Your task to perform on an android device: visit the assistant section in the google photos Image 0: 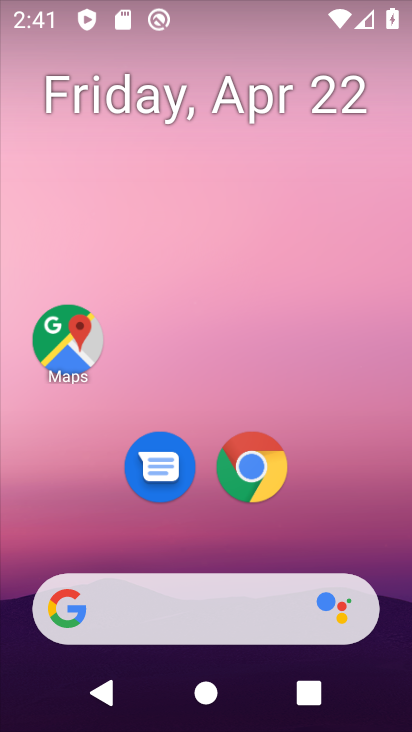
Step 0: drag from (398, 586) to (294, 81)
Your task to perform on an android device: visit the assistant section in the google photos Image 1: 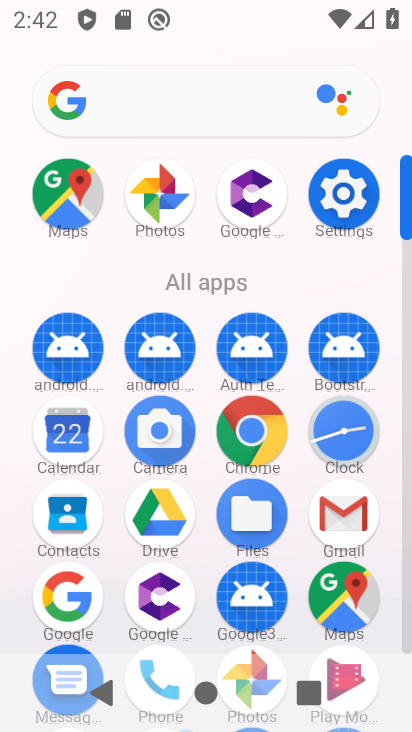
Step 1: click (163, 208)
Your task to perform on an android device: visit the assistant section in the google photos Image 2: 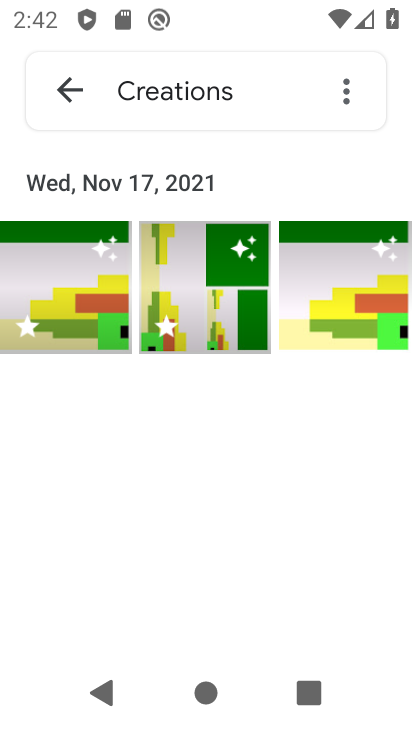
Step 2: click (74, 96)
Your task to perform on an android device: visit the assistant section in the google photos Image 3: 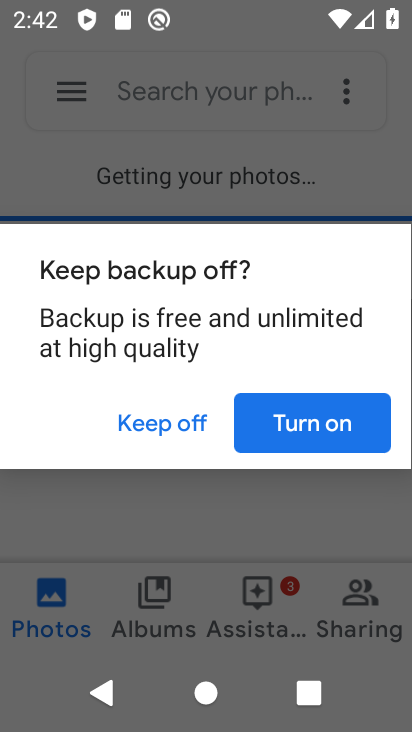
Step 3: click (324, 428)
Your task to perform on an android device: visit the assistant section in the google photos Image 4: 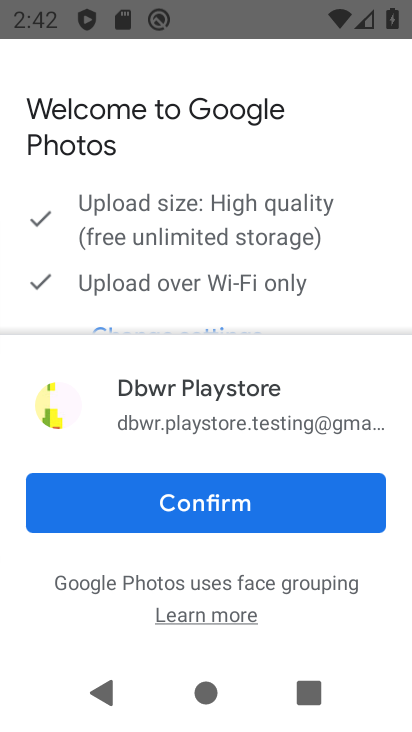
Step 4: click (288, 497)
Your task to perform on an android device: visit the assistant section in the google photos Image 5: 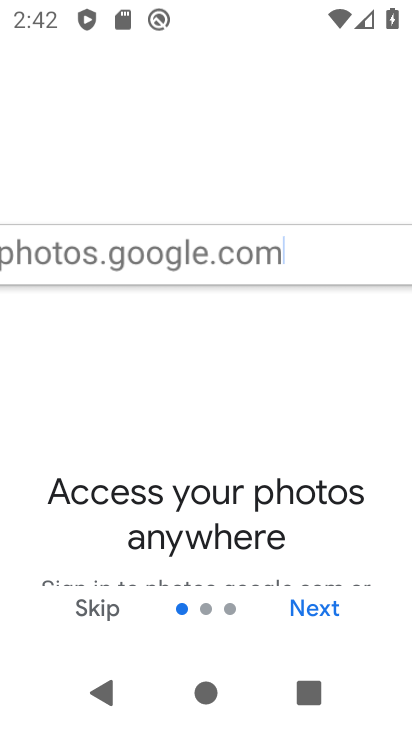
Step 5: click (304, 608)
Your task to perform on an android device: visit the assistant section in the google photos Image 6: 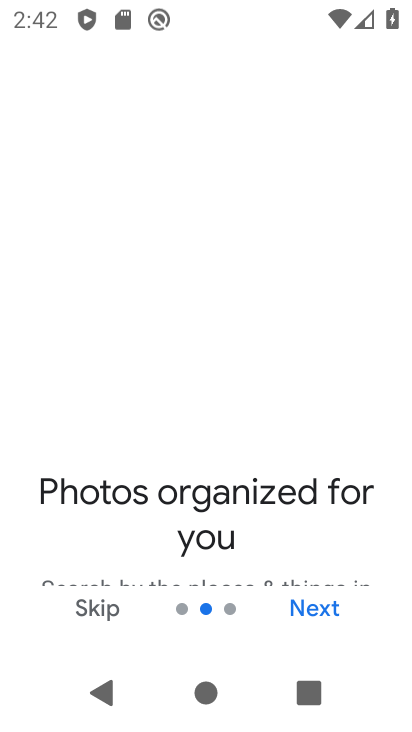
Step 6: click (304, 608)
Your task to perform on an android device: visit the assistant section in the google photos Image 7: 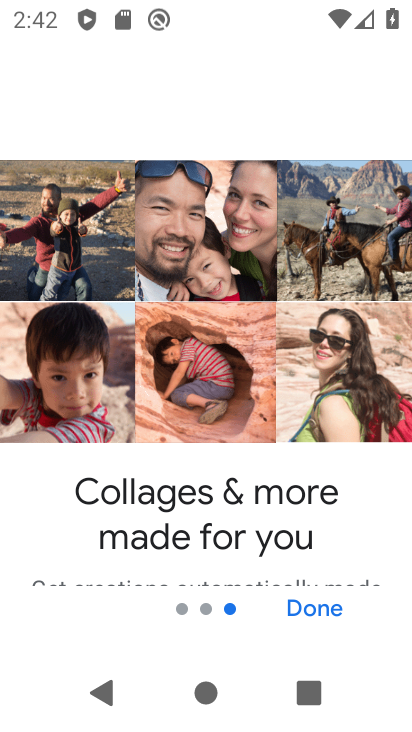
Step 7: click (304, 608)
Your task to perform on an android device: visit the assistant section in the google photos Image 8: 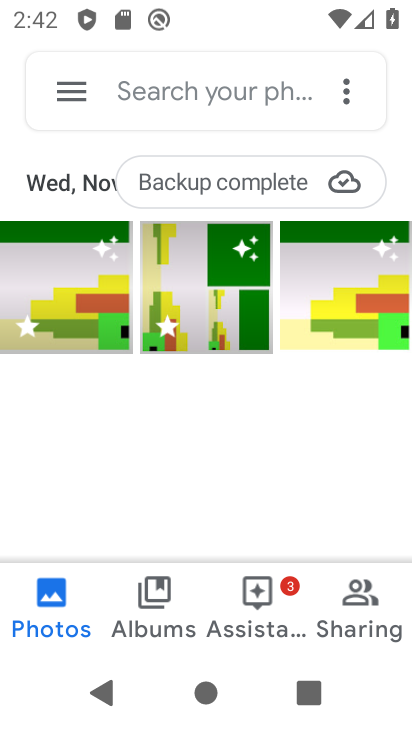
Step 8: click (273, 604)
Your task to perform on an android device: visit the assistant section in the google photos Image 9: 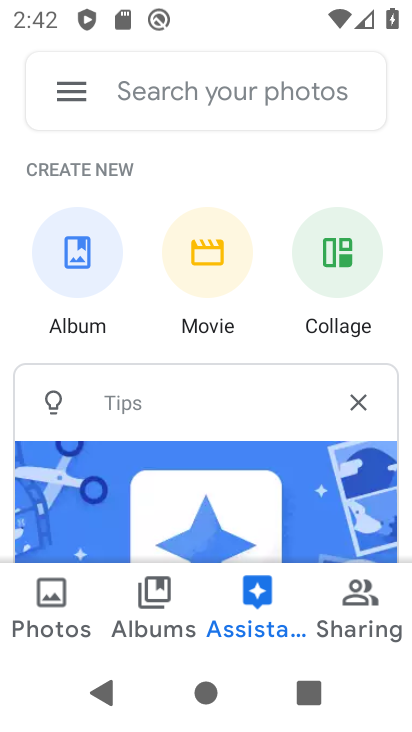
Step 9: task complete